Your task to perform on an android device: Check the news Image 0: 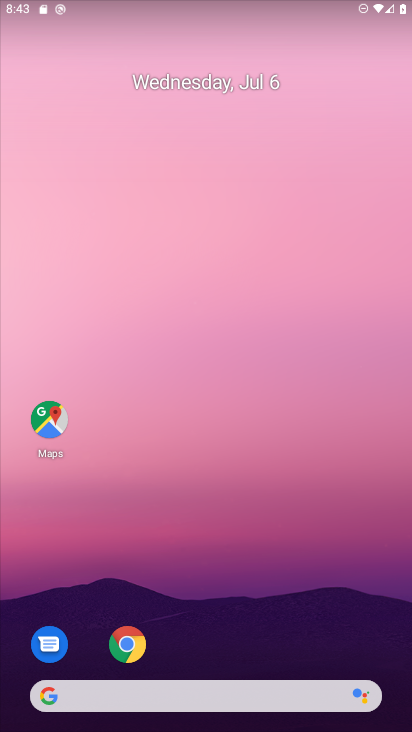
Step 0: click (187, 691)
Your task to perform on an android device: Check the news Image 1: 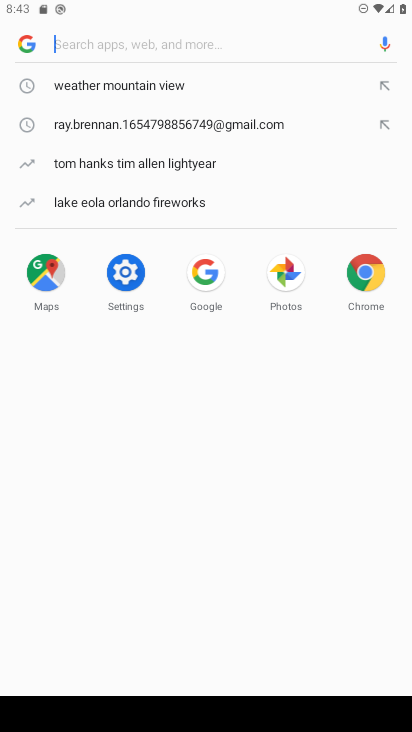
Step 1: type "news"
Your task to perform on an android device: Check the news Image 2: 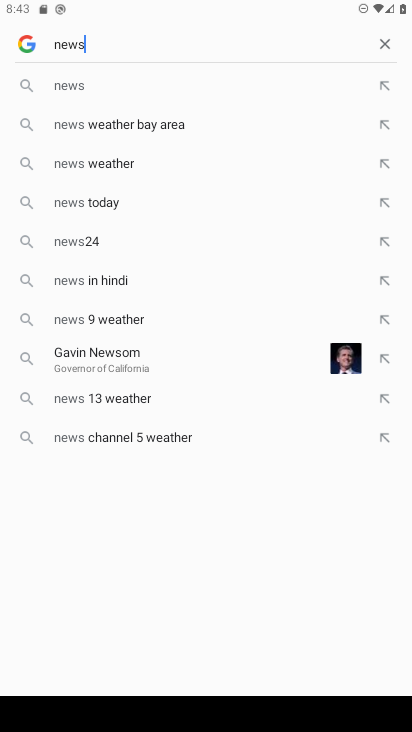
Step 2: click (78, 94)
Your task to perform on an android device: Check the news Image 3: 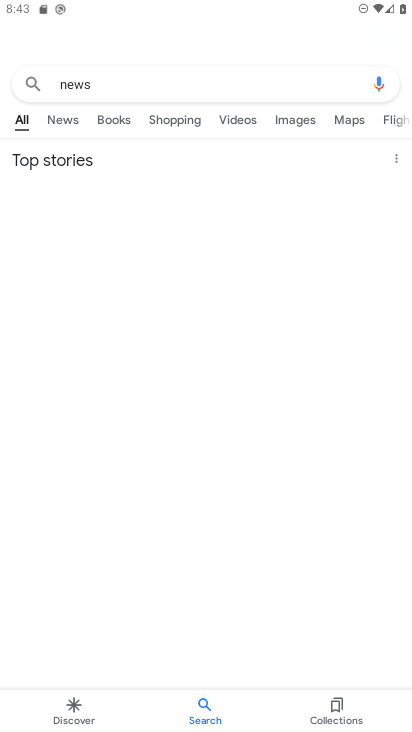
Step 3: click (67, 116)
Your task to perform on an android device: Check the news Image 4: 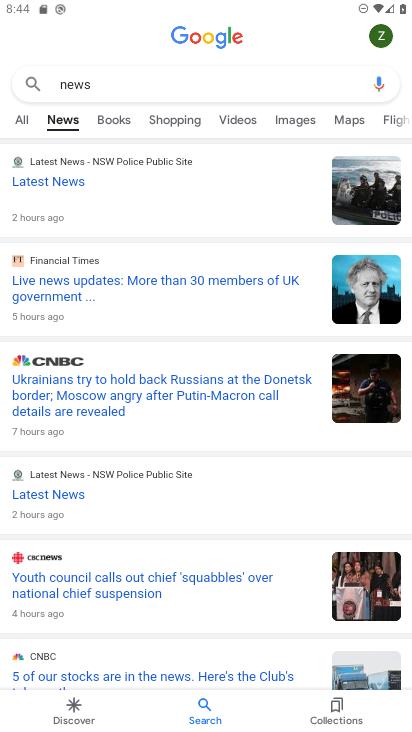
Step 4: task complete